Your task to perform on an android device: Open my contact list Image 0: 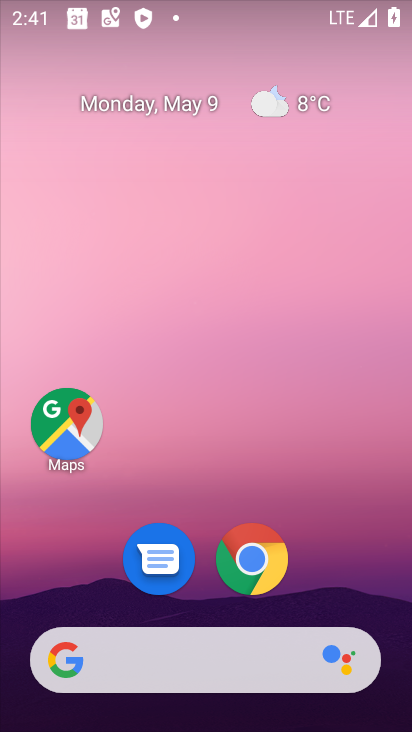
Step 0: drag from (352, 573) to (273, 84)
Your task to perform on an android device: Open my contact list Image 1: 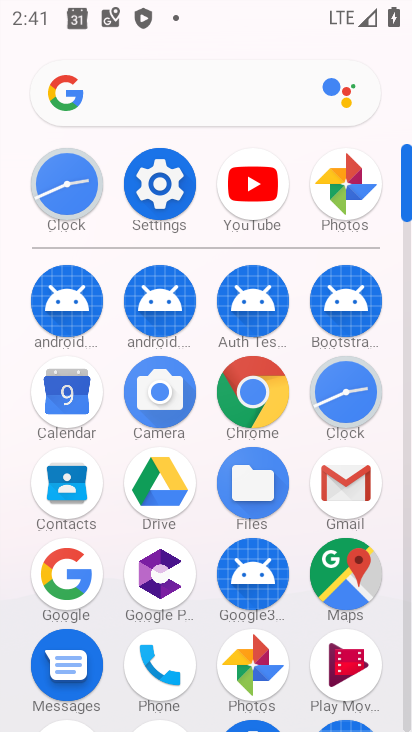
Step 1: click (65, 485)
Your task to perform on an android device: Open my contact list Image 2: 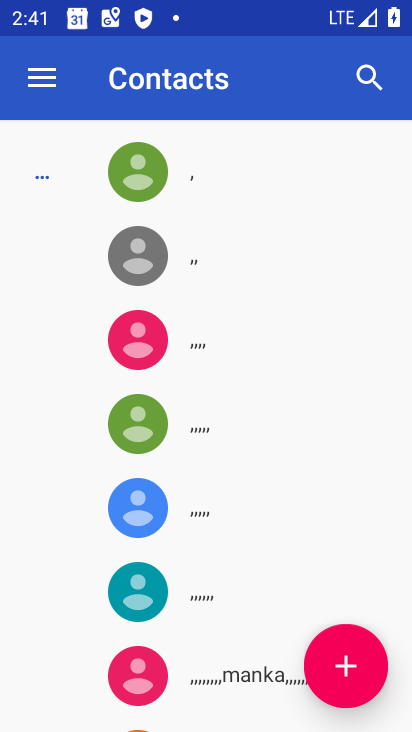
Step 2: task complete